Your task to perform on an android device: toggle notifications settings in the gmail app Image 0: 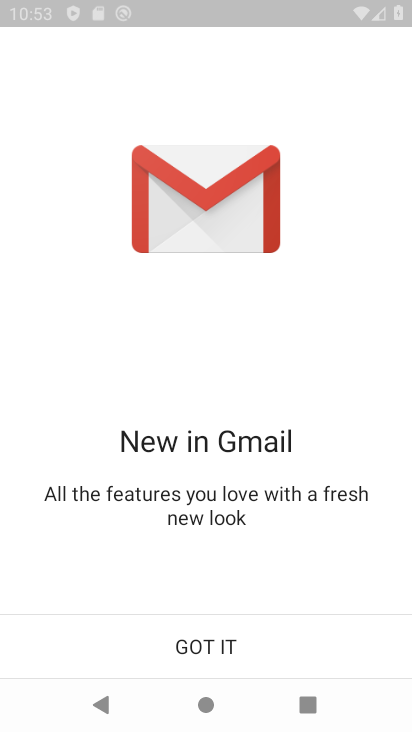
Step 0: drag from (240, 709) to (251, 146)
Your task to perform on an android device: toggle notifications settings in the gmail app Image 1: 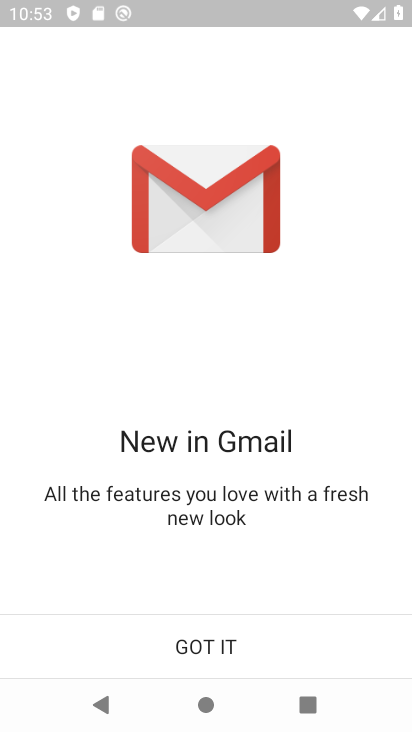
Step 1: press home button
Your task to perform on an android device: toggle notifications settings in the gmail app Image 2: 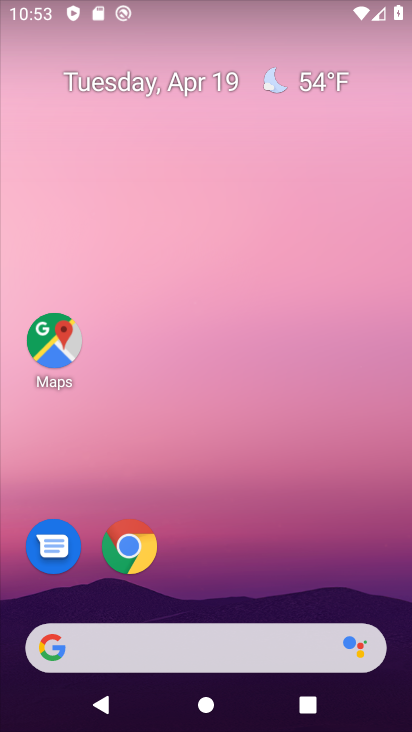
Step 2: drag from (246, 712) to (287, 159)
Your task to perform on an android device: toggle notifications settings in the gmail app Image 3: 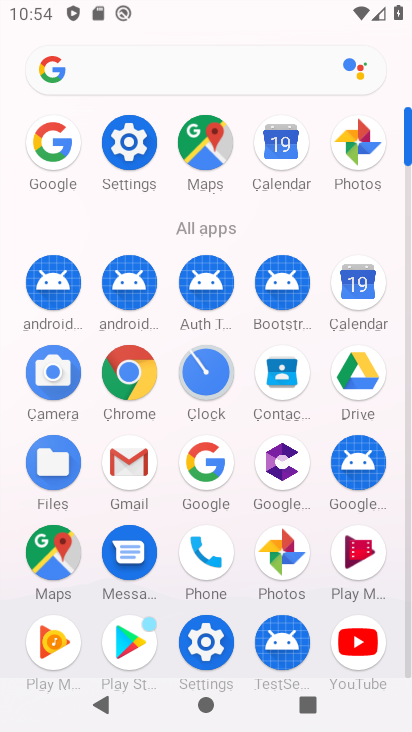
Step 3: click (126, 475)
Your task to perform on an android device: toggle notifications settings in the gmail app Image 4: 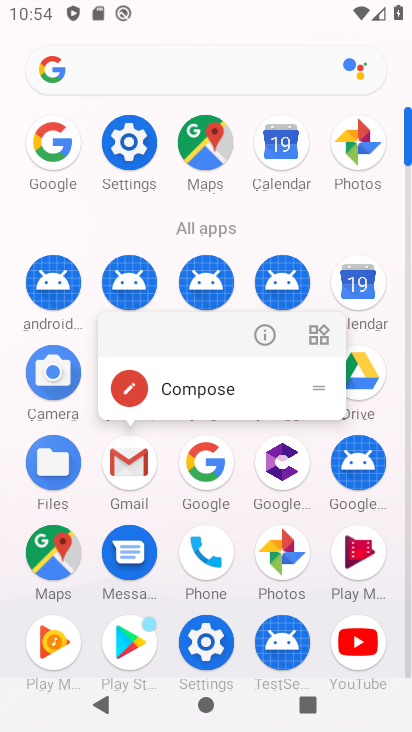
Step 4: click (265, 331)
Your task to perform on an android device: toggle notifications settings in the gmail app Image 5: 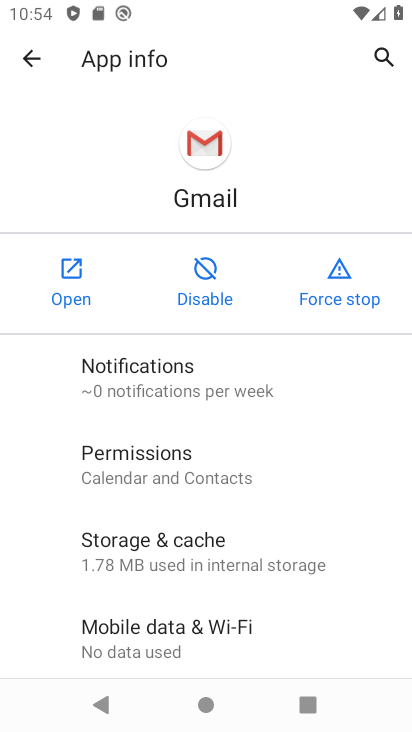
Step 5: click (175, 390)
Your task to perform on an android device: toggle notifications settings in the gmail app Image 6: 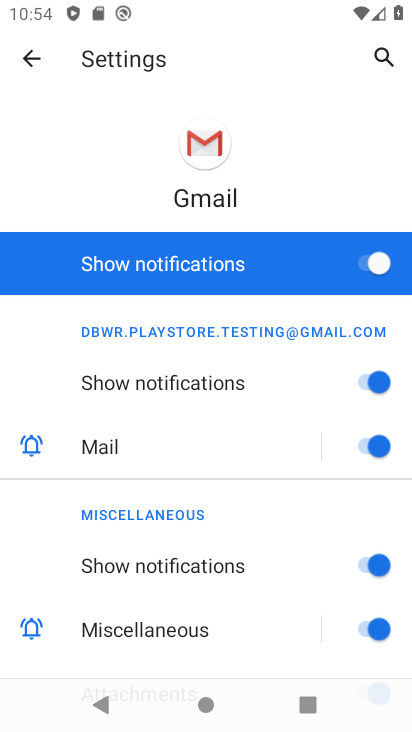
Step 6: click (353, 262)
Your task to perform on an android device: toggle notifications settings in the gmail app Image 7: 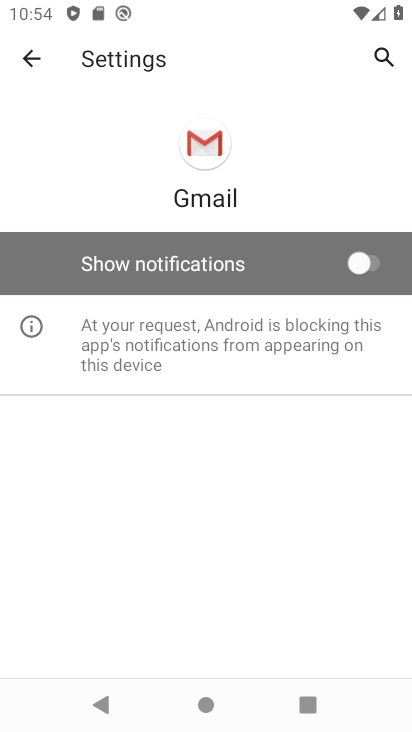
Step 7: task complete